Your task to perform on an android device: Open ESPN.com Image 0: 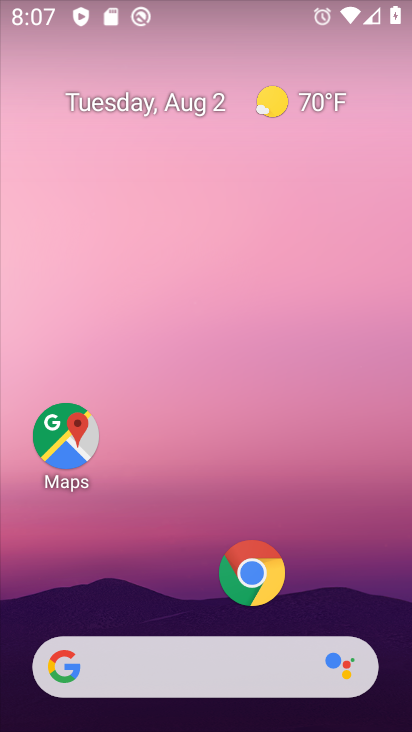
Step 0: click (248, 564)
Your task to perform on an android device: Open ESPN.com Image 1: 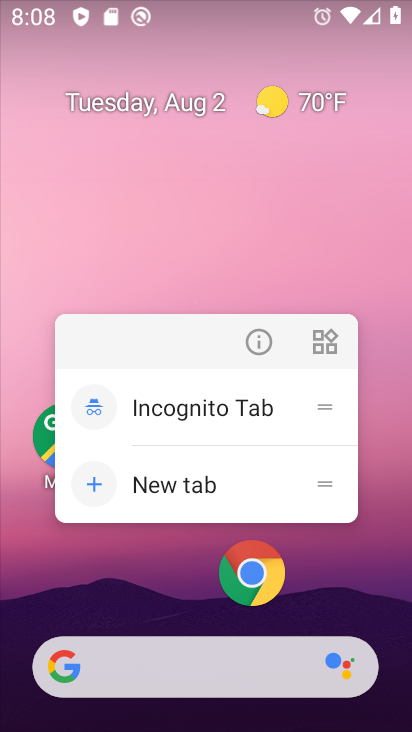
Step 1: click (252, 560)
Your task to perform on an android device: Open ESPN.com Image 2: 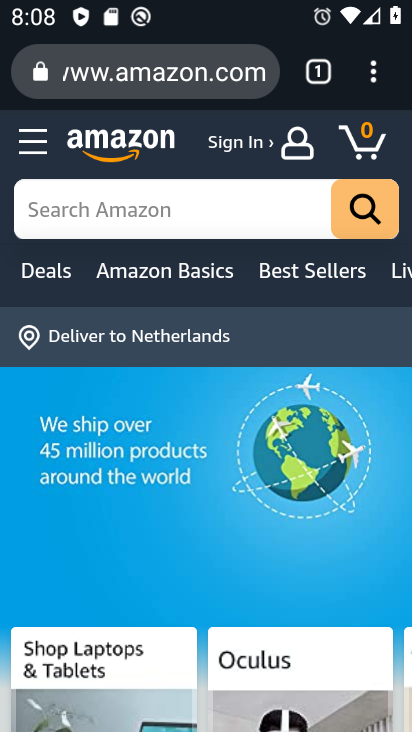
Step 2: click (318, 60)
Your task to perform on an android device: Open ESPN.com Image 3: 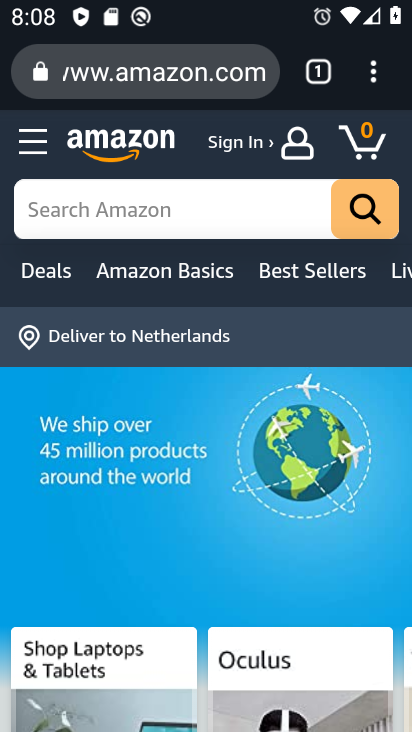
Step 3: click (321, 73)
Your task to perform on an android device: Open ESPN.com Image 4: 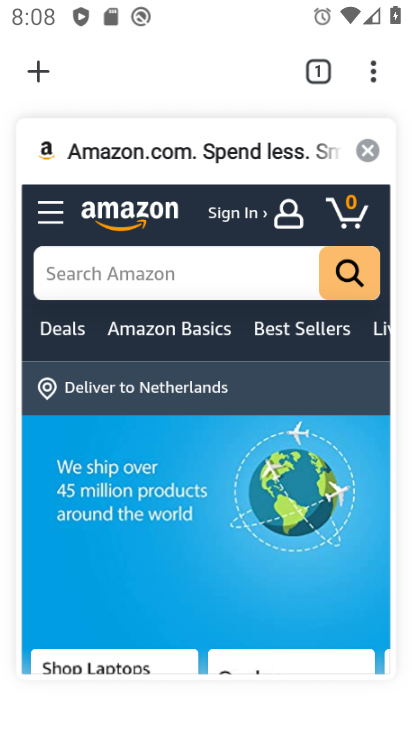
Step 4: click (39, 76)
Your task to perform on an android device: Open ESPN.com Image 5: 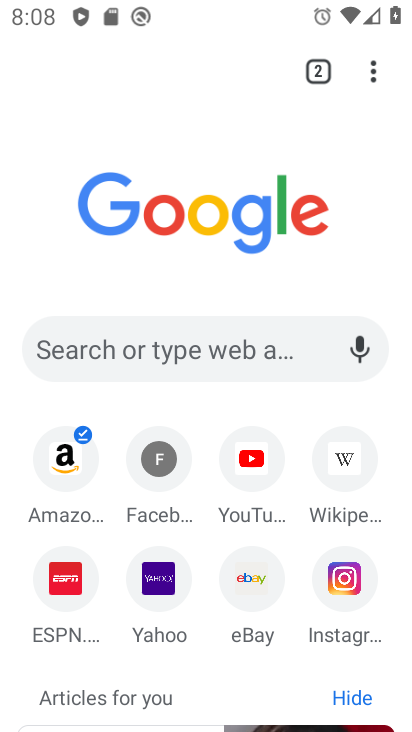
Step 5: click (65, 576)
Your task to perform on an android device: Open ESPN.com Image 6: 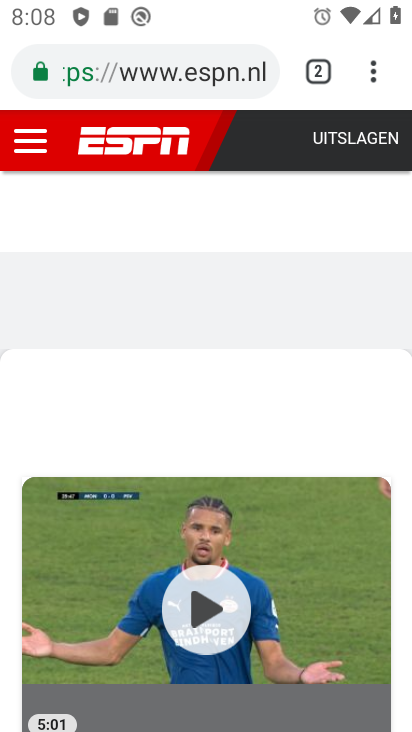
Step 6: drag from (211, 461) to (214, 65)
Your task to perform on an android device: Open ESPN.com Image 7: 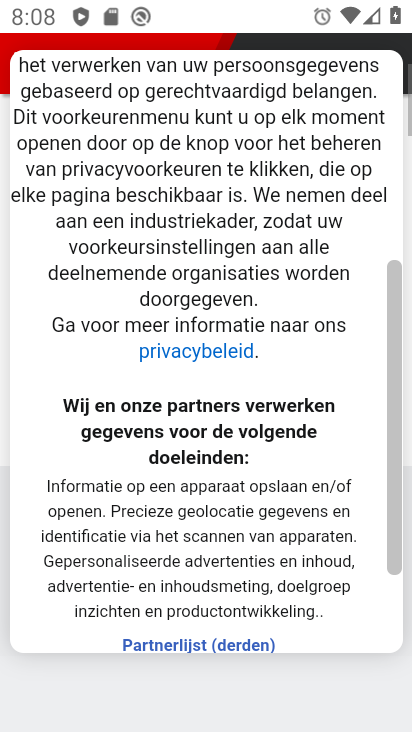
Step 7: drag from (274, 597) to (261, 109)
Your task to perform on an android device: Open ESPN.com Image 8: 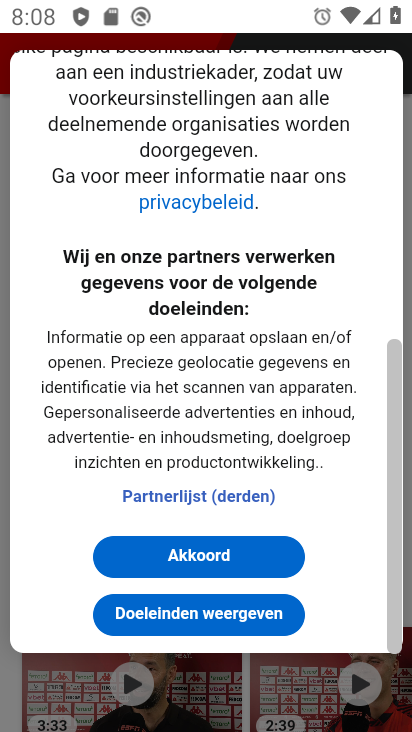
Step 8: click (205, 550)
Your task to perform on an android device: Open ESPN.com Image 9: 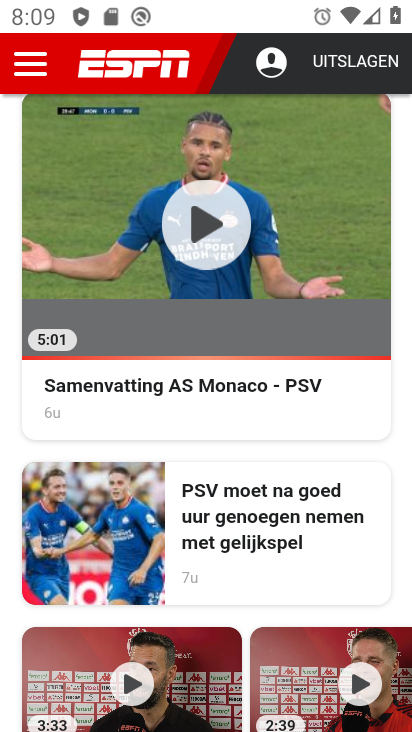
Step 9: task complete